Your task to perform on an android device: Clear the shopping cart on target.com. Search for usb-a to usb-b on target.com, select the first entry, and add it to the cart. Image 0: 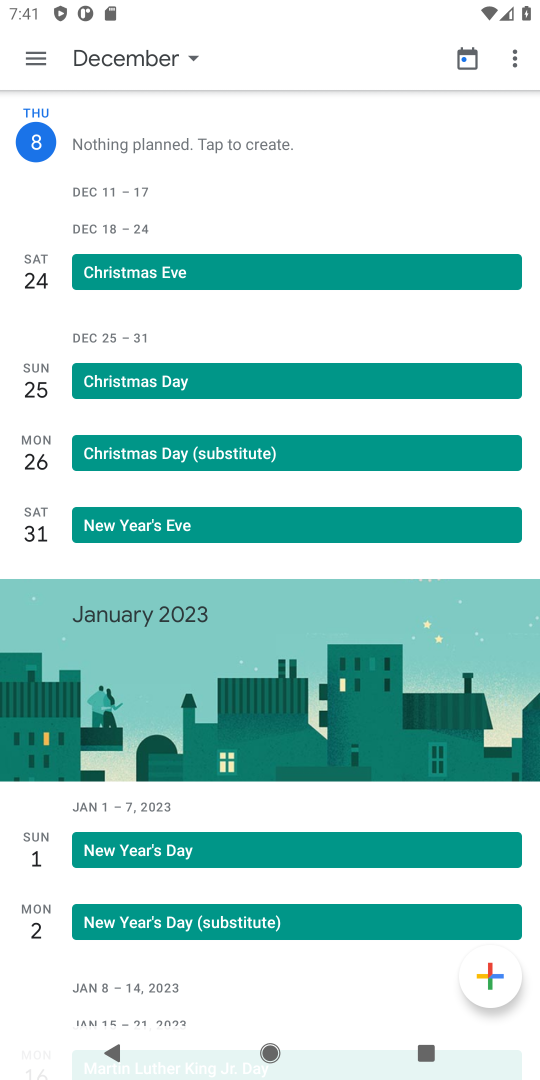
Step 0: press home button
Your task to perform on an android device: Clear the shopping cart on target.com. Search for usb-a to usb-b on target.com, select the first entry, and add it to the cart. Image 1: 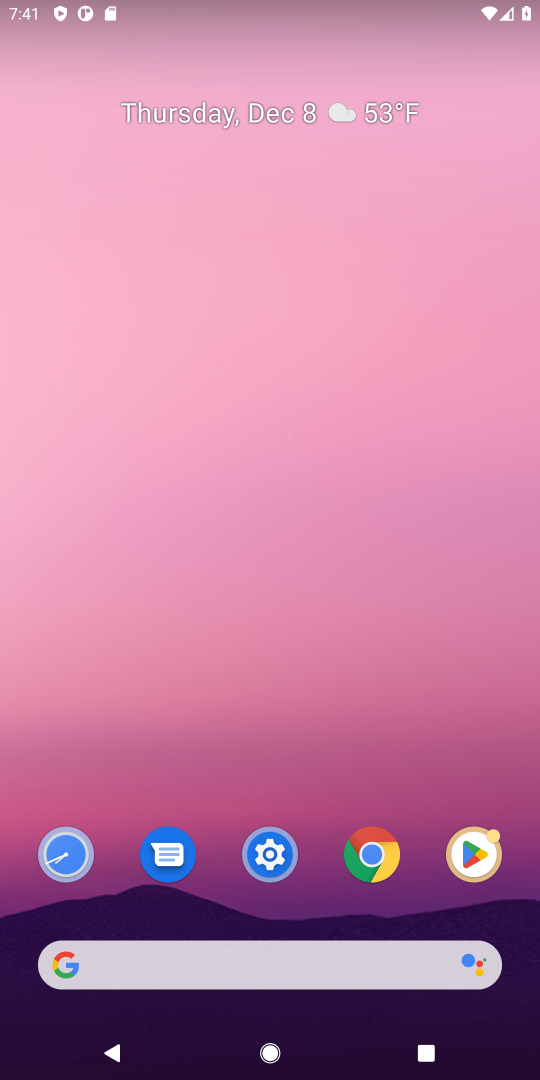
Step 1: click (89, 959)
Your task to perform on an android device: Clear the shopping cart on target.com. Search for usb-a to usb-b on target.com, select the first entry, and add it to the cart. Image 2: 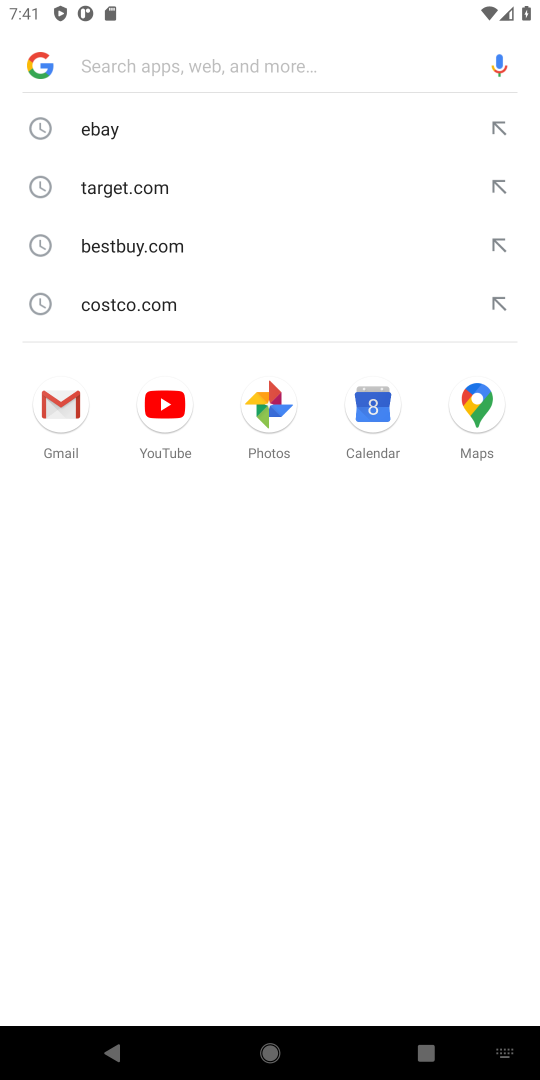
Step 2: type "target.com"
Your task to perform on an android device: Clear the shopping cart on target.com. Search for usb-a to usb-b on target.com, select the first entry, and add it to the cart. Image 3: 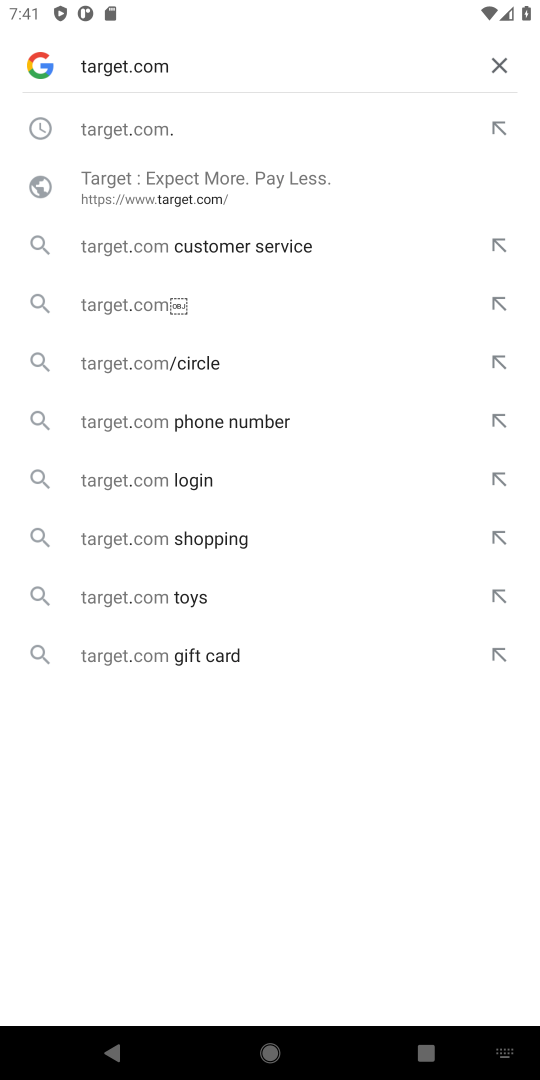
Step 3: press enter
Your task to perform on an android device: Clear the shopping cart on target.com. Search for usb-a to usb-b on target.com, select the first entry, and add it to the cart. Image 4: 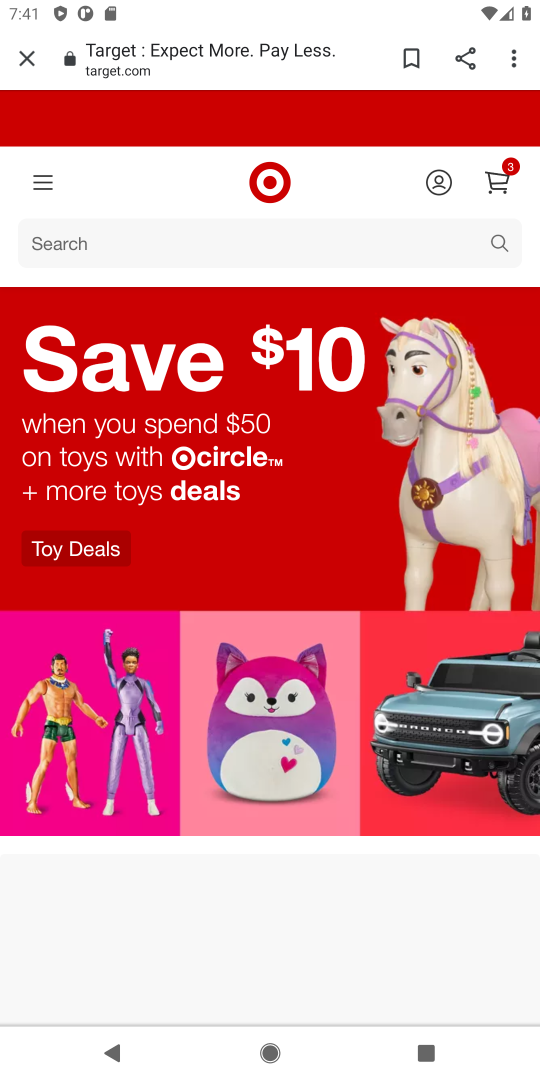
Step 4: click (497, 177)
Your task to perform on an android device: Clear the shopping cart on target.com. Search for usb-a to usb-b on target.com, select the first entry, and add it to the cart. Image 5: 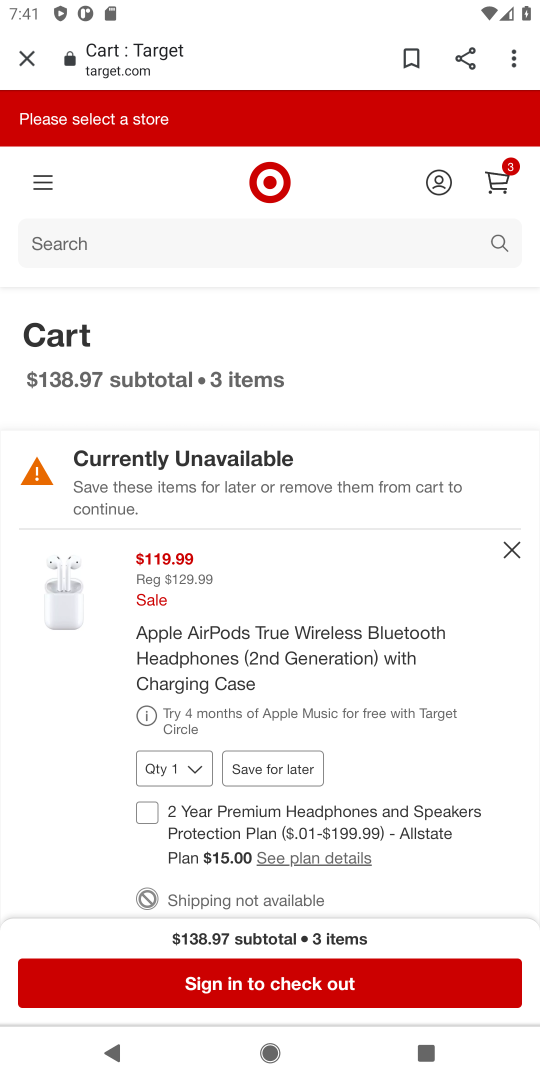
Step 5: click (158, 235)
Your task to perform on an android device: Clear the shopping cart on target.com. Search for usb-a to usb-b on target.com, select the first entry, and add it to the cart. Image 6: 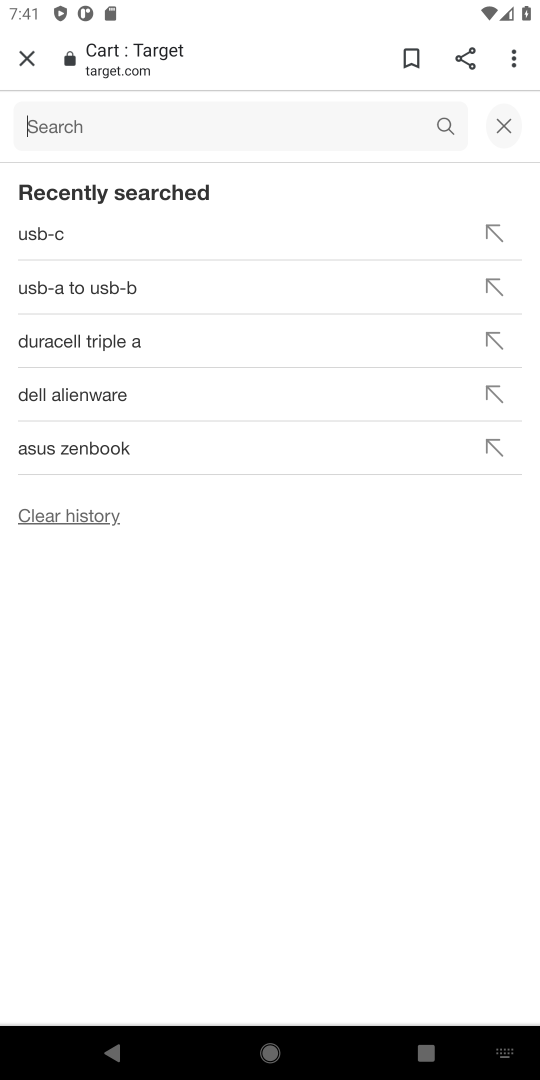
Step 6: click (505, 119)
Your task to perform on an android device: Clear the shopping cart on target.com. Search for usb-a to usb-b on target.com, select the first entry, and add it to the cart. Image 7: 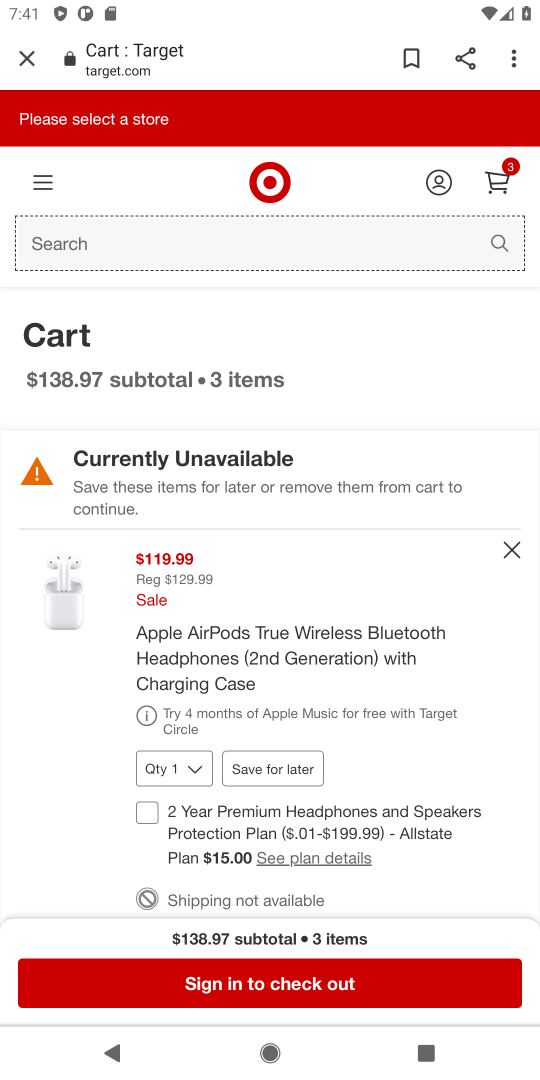
Step 7: click (513, 542)
Your task to perform on an android device: Clear the shopping cart on target.com. Search for usb-a to usb-b on target.com, select the first entry, and add it to the cart. Image 8: 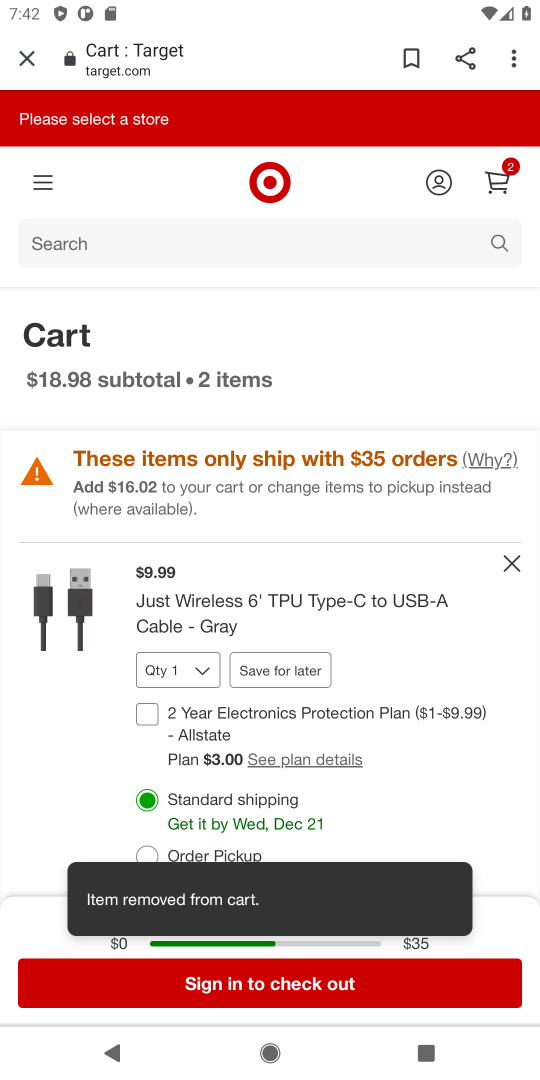
Step 8: click (509, 561)
Your task to perform on an android device: Clear the shopping cart on target.com. Search for usb-a to usb-b on target.com, select the first entry, and add it to the cart. Image 9: 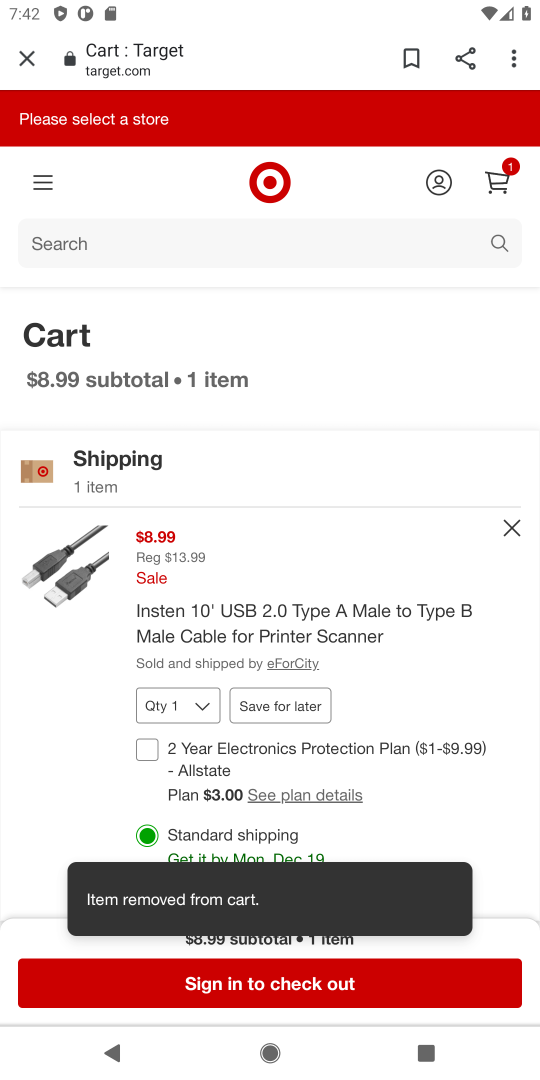
Step 9: click (505, 525)
Your task to perform on an android device: Clear the shopping cart on target.com. Search for usb-a to usb-b on target.com, select the first entry, and add it to the cart. Image 10: 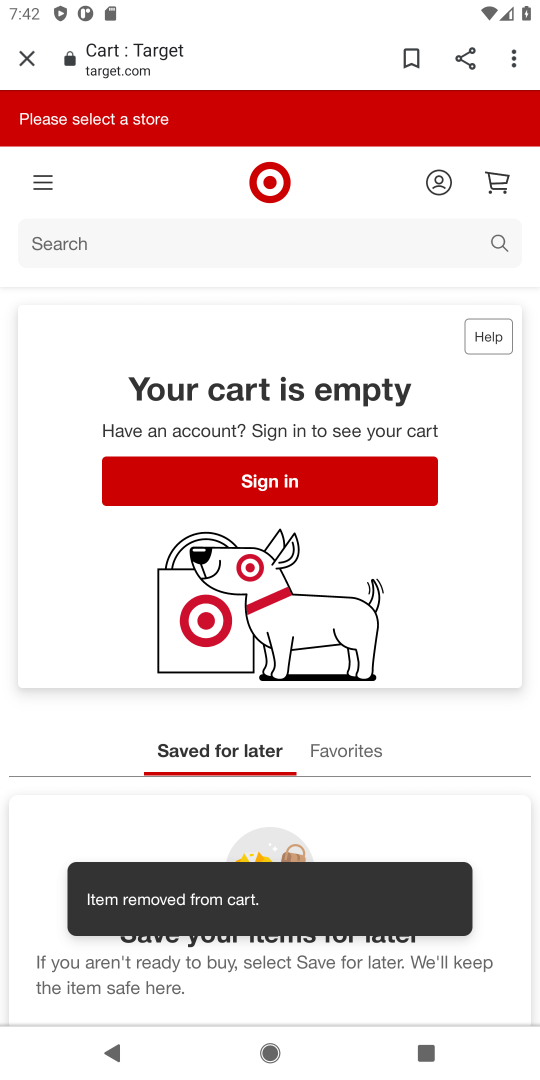
Step 10: click (110, 240)
Your task to perform on an android device: Clear the shopping cart on target.com. Search for usb-a to usb-b on target.com, select the first entry, and add it to the cart. Image 11: 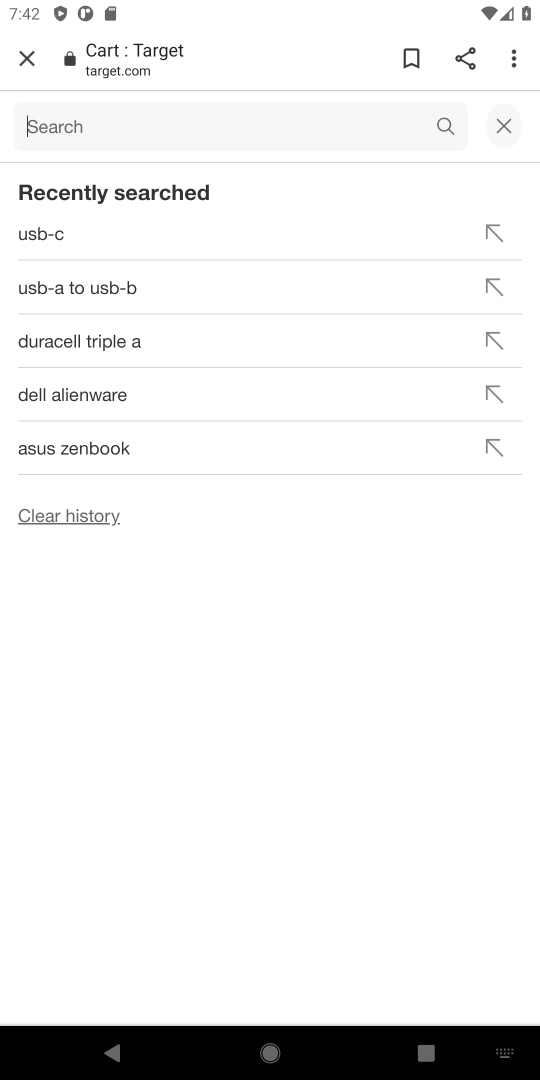
Step 11: type "usb-a to usb-b"
Your task to perform on an android device: Clear the shopping cart on target.com. Search for usb-a to usb-b on target.com, select the first entry, and add it to the cart. Image 12: 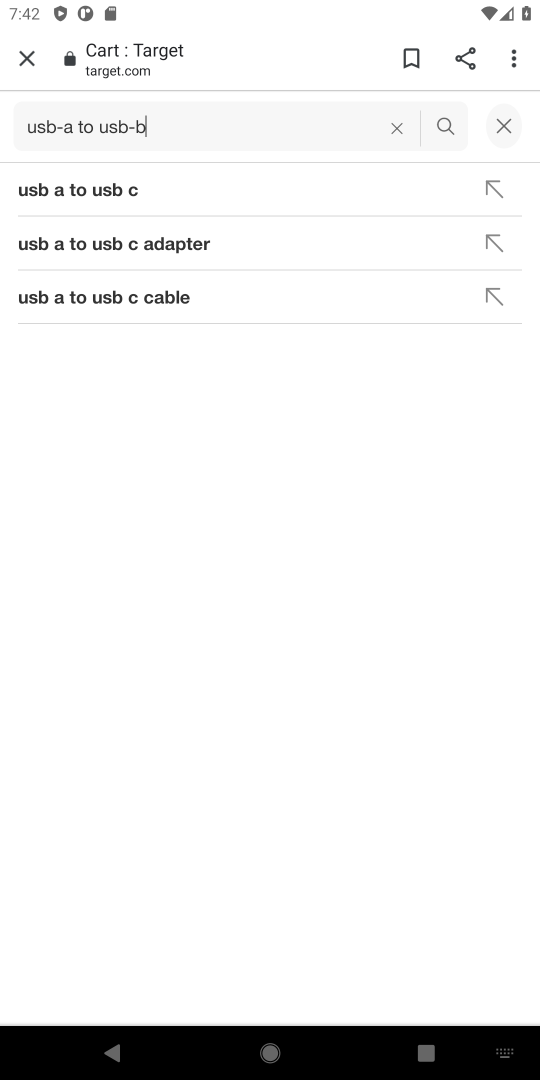
Step 12: press enter
Your task to perform on an android device: Clear the shopping cart on target.com. Search for usb-a to usb-b on target.com, select the first entry, and add it to the cart. Image 13: 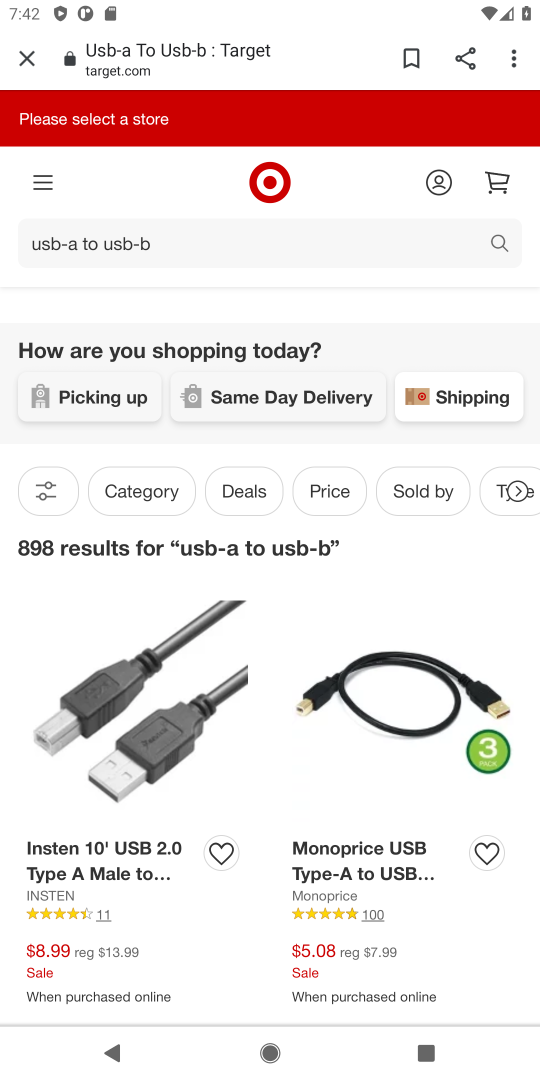
Step 13: drag from (350, 933) to (408, 546)
Your task to perform on an android device: Clear the shopping cart on target.com. Search for usb-a to usb-b on target.com, select the first entry, and add it to the cart. Image 14: 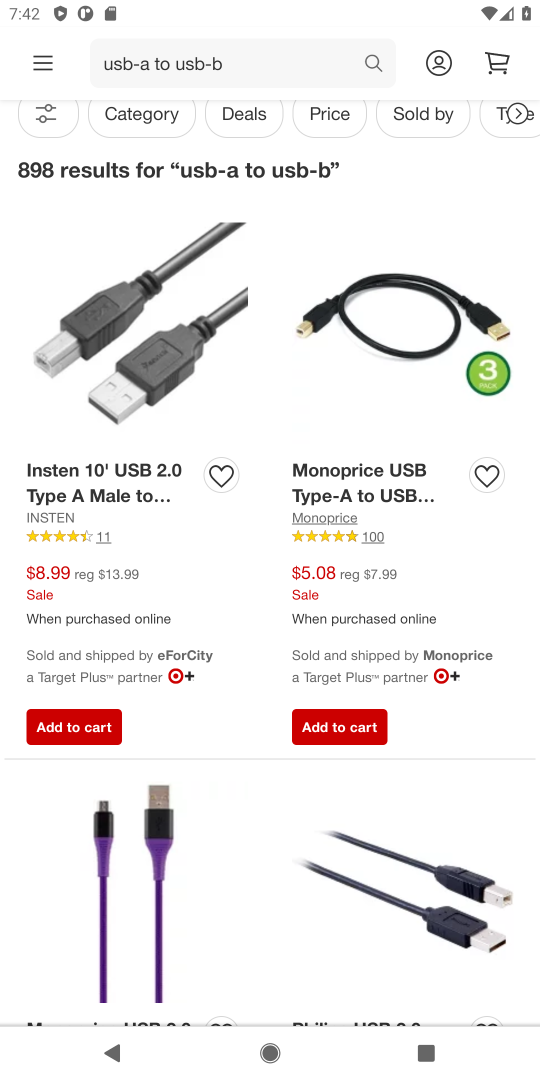
Step 14: click (64, 724)
Your task to perform on an android device: Clear the shopping cart on target.com. Search for usb-a to usb-b on target.com, select the first entry, and add it to the cart. Image 15: 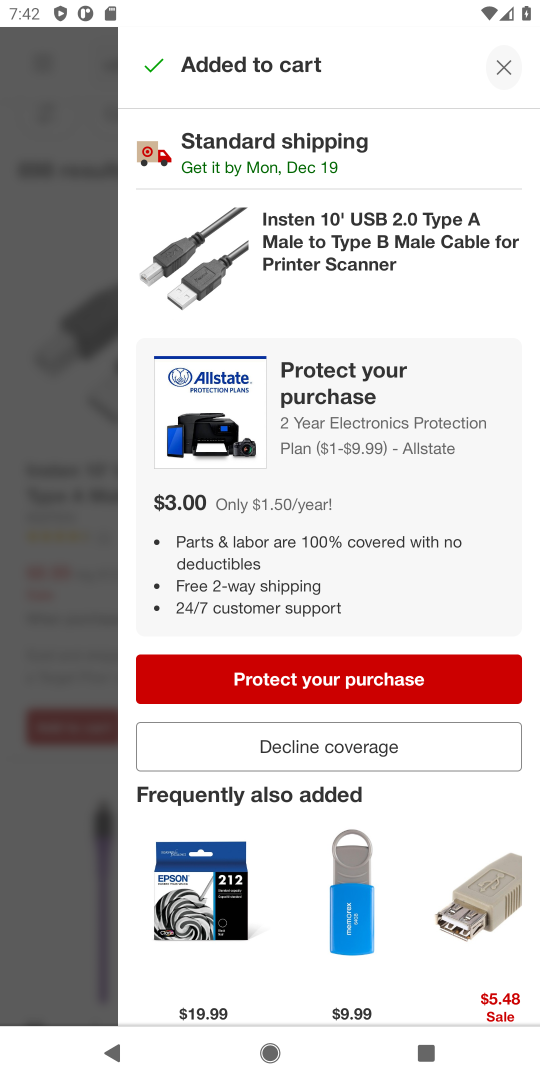
Step 15: task complete